Your task to perform on an android device: toggle pop-ups in chrome Image 0: 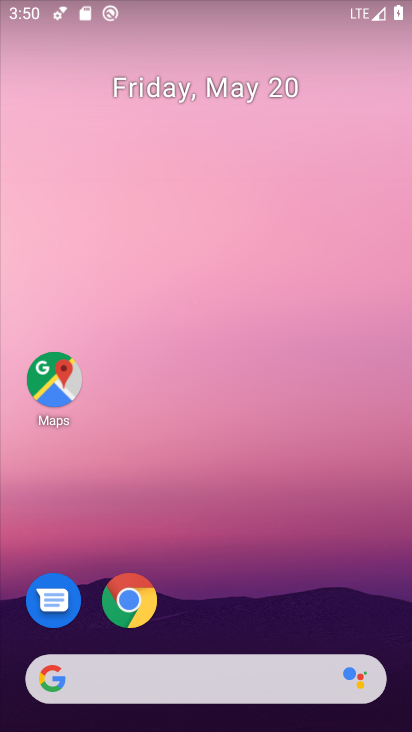
Step 0: drag from (378, 621) to (369, 285)
Your task to perform on an android device: toggle pop-ups in chrome Image 1: 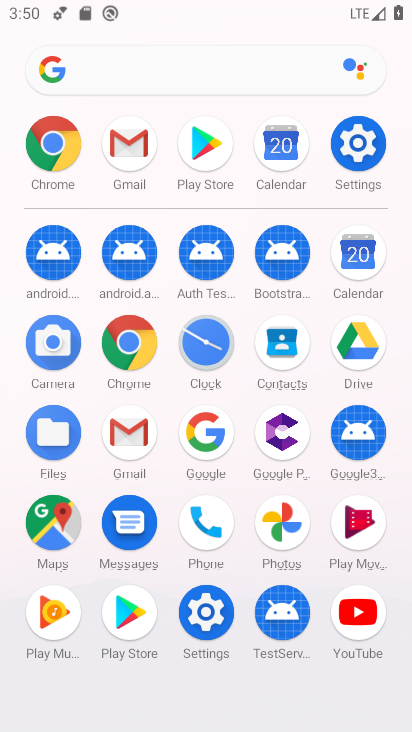
Step 1: click (148, 349)
Your task to perform on an android device: toggle pop-ups in chrome Image 2: 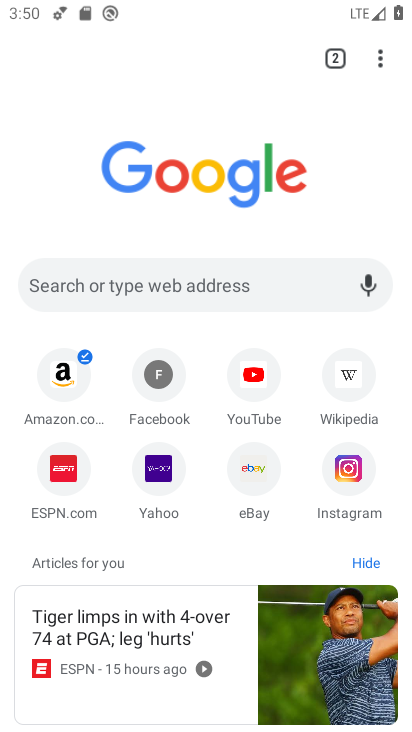
Step 2: click (380, 67)
Your task to perform on an android device: toggle pop-ups in chrome Image 3: 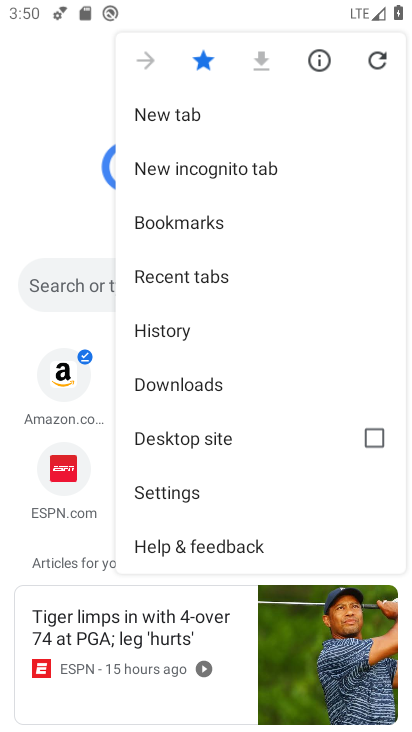
Step 3: drag from (306, 482) to (306, 397)
Your task to perform on an android device: toggle pop-ups in chrome Image 4: 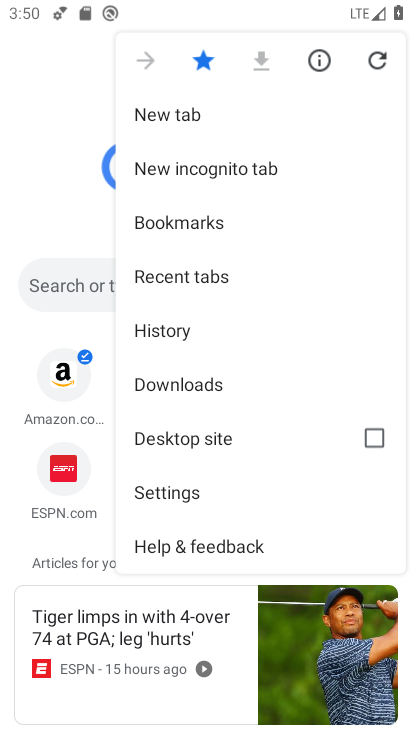
Step 4: click (216, 498)
Your task to perform on an android device: toggle pop-ups in chrome Image 5: 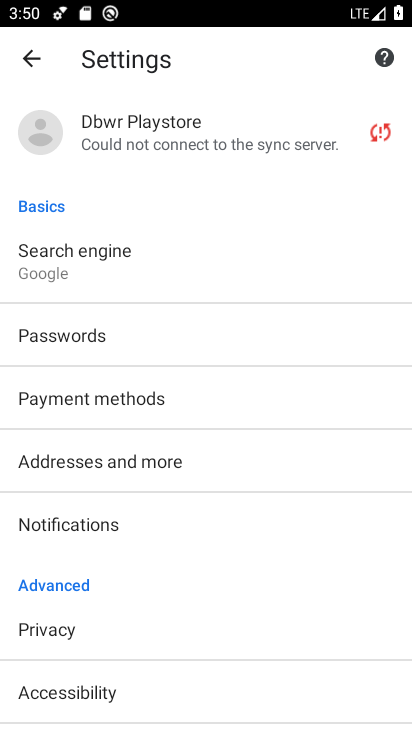
Step 5: drag from (300, 578) to (306, 489)
Your task to perform on an android device: toggle pop-ups in chrome Image 6: 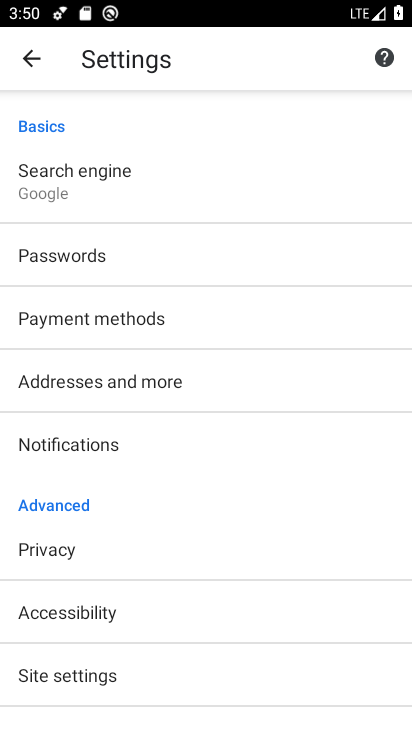
Step 6: drag from (327, 620) to (331, 557)
Your task to perform on an android device: toggle pop-ups in chrome Image 7: 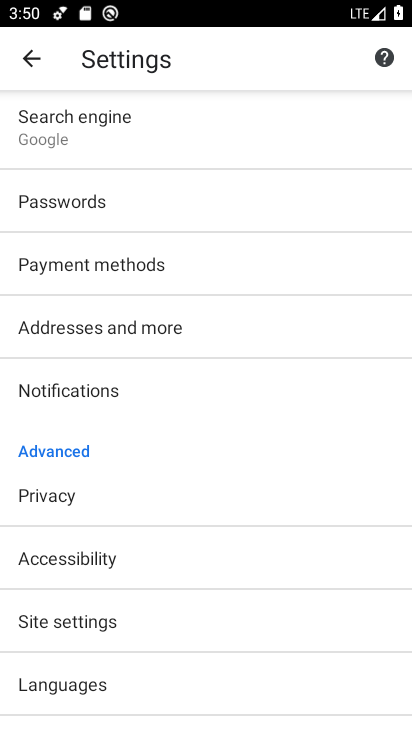
Step 7: drag from (324, 641) to (328, 570)
Your task to perform on an android device: toggle pop-ups in chrome Image 8: 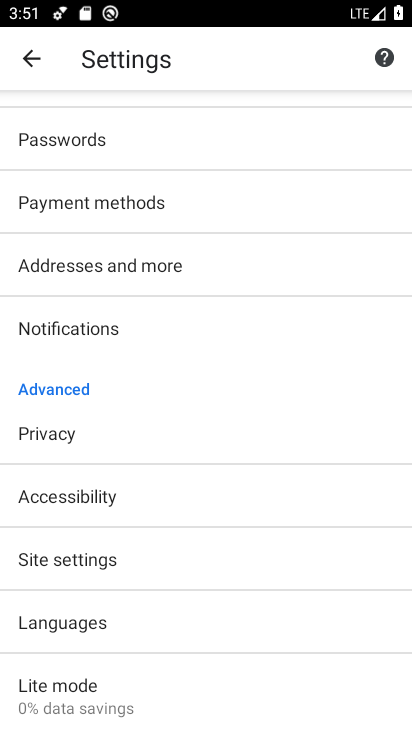
Step 8: drag from (328, 657) to (330, 600)
Your task to perform on an android device: toggle pop-ups in chrome Image 9: 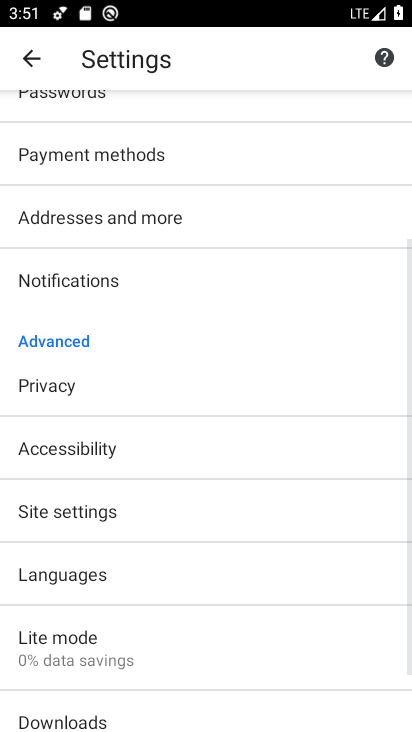
Step 9: drag from (319, 692) to (320, 600)
Your task to perform on an android device: toggle pop-ups in chrome Image 10: 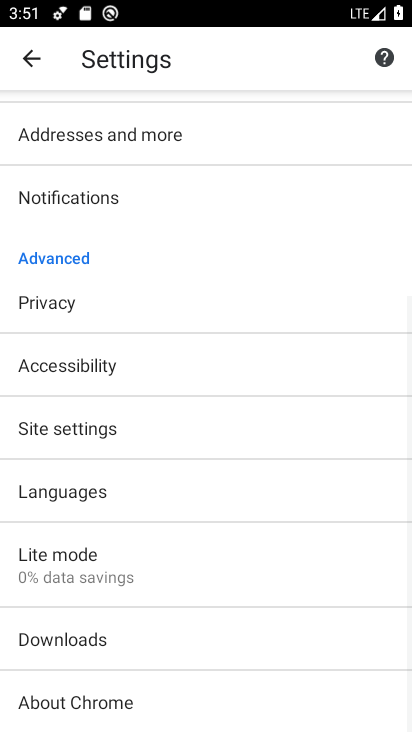
Step 10: drag from (310, 688) to (311, 595)
Your task to perform on an android device: toggle pop-ups in chrome Image 11: 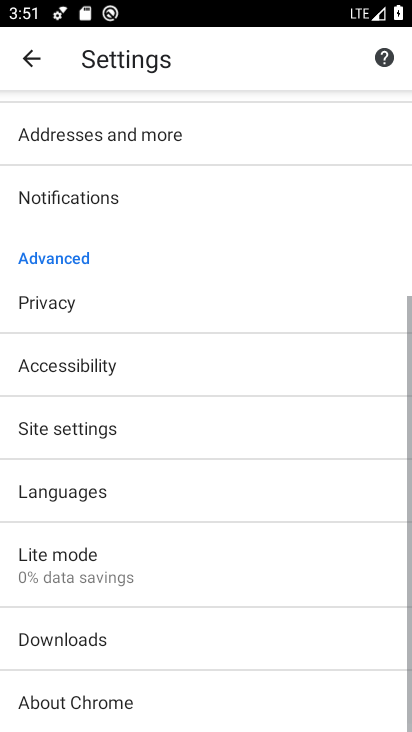
Step 11: drag from (284, 485) to (284, 575)
Your task to perform on an android device: toggle pop-ups in chrome Image 12: 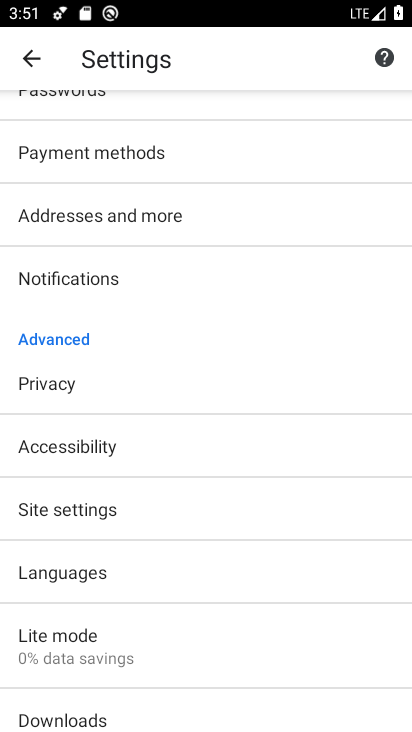
Step 12: drag from (259, 465) to (253, 527)
Your task to perform on an android device: toggle pop-ups in chrome Image 13: 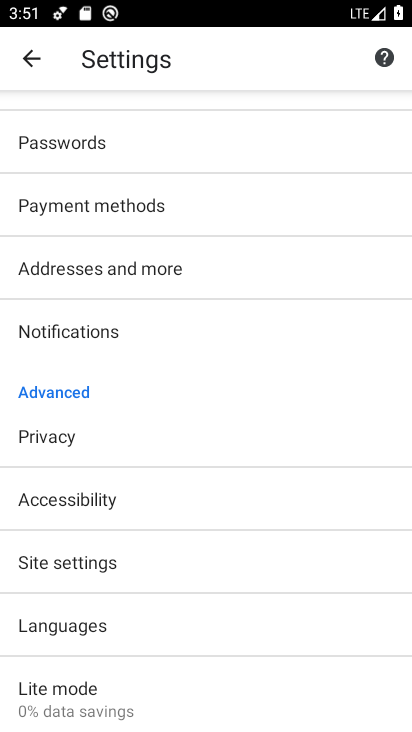
Step 13: click (219, 560)
Your task to perform on an android device: toggle pop-ups in chrome Image 14: 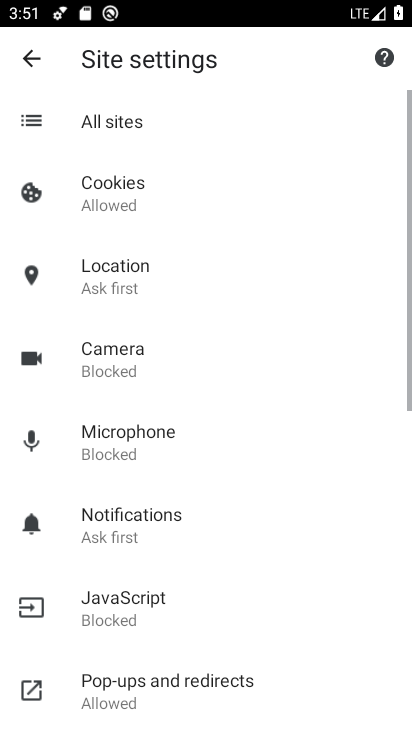
Step 14: drag from (276, 419) to (286, 540)
Your task to perform on an android device: toggle pop-ups in chrome Image 15: 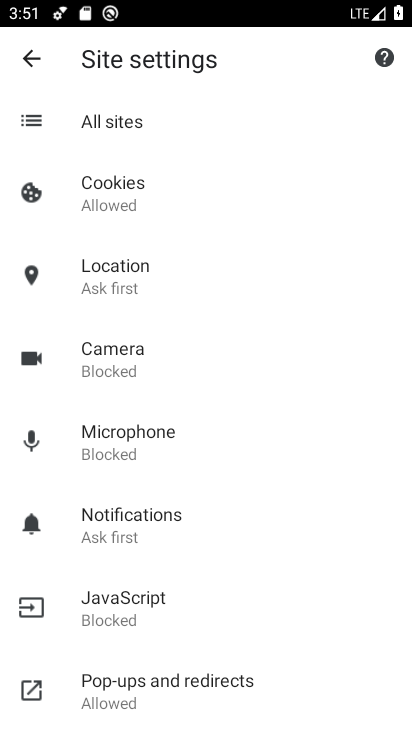
Step 15: drag from (300, 626) to (301, 517)
Your task to perform on an android device: toggle pop-ups in chrome Image 16: 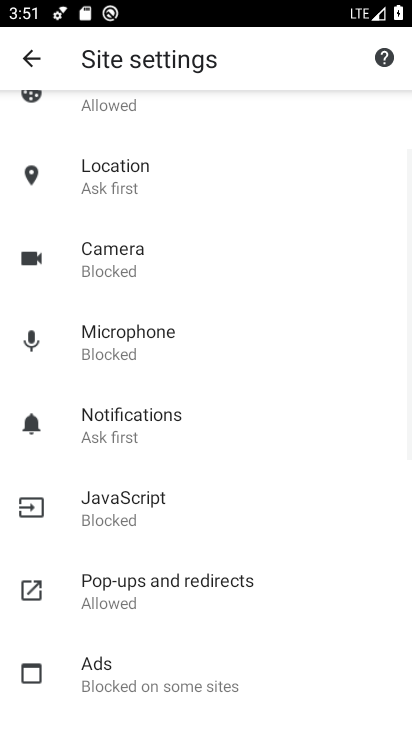
Step 16: drag from (313, 624) to (309, 549)
Your task to perform on an android device: toggle pop-ups in chrome Image 17: 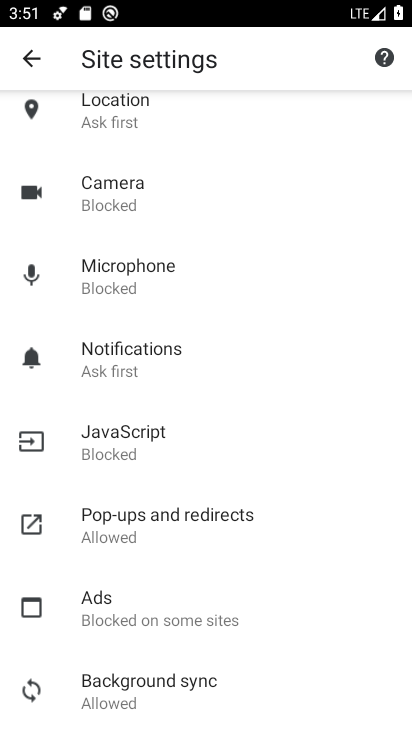
Step 17: drag from (326, 621) to (316, 543)
Your task to perform on an android device: toggle pop-ups in chrome Image 18: 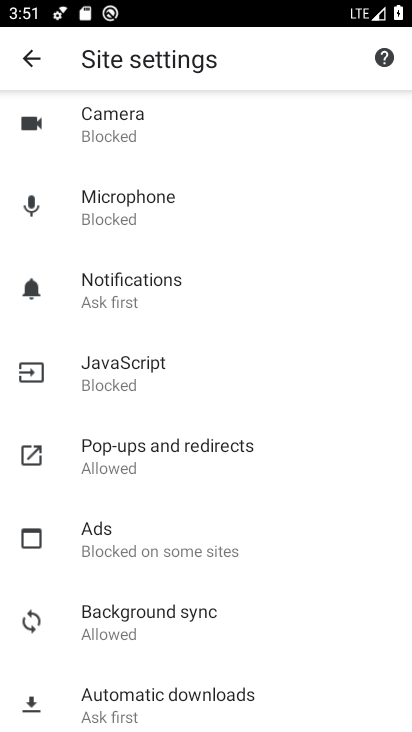
Step 18: click (249, 464)
Your task to perform on an android device: toggle pop-ups in chrome Image 19: 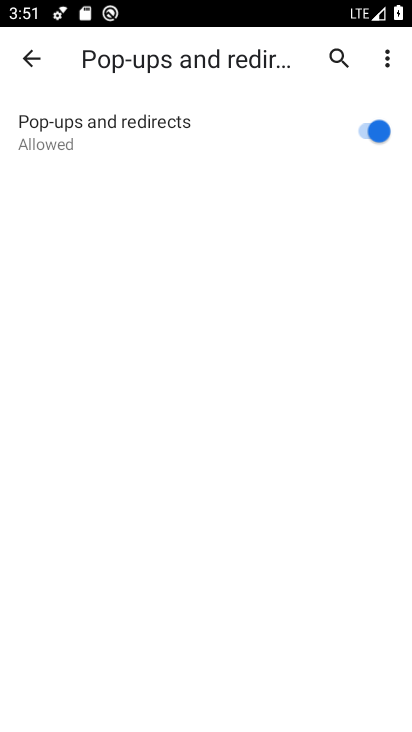
Step 19: click (366, 141)
Your task to perform on an android device: toggle pop-ups in chrome Image 20: 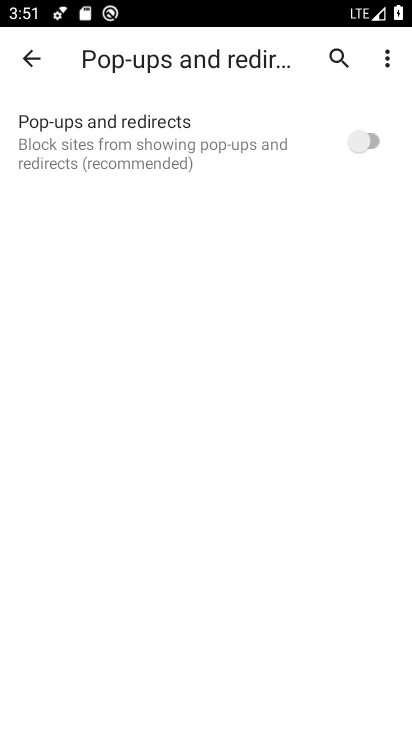
Step 20: task complete